Your task to perform on an android device: Open display settings Image 0: 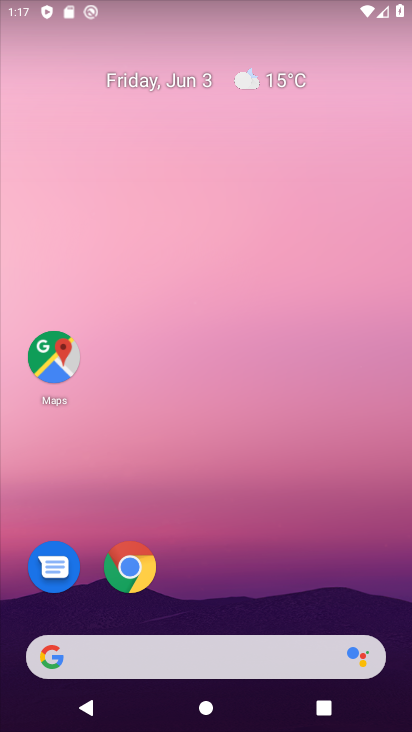
Step 0: drag from (262, 567) to (193, 73)
Your task to perform on an android device: Open display settings Image 1: 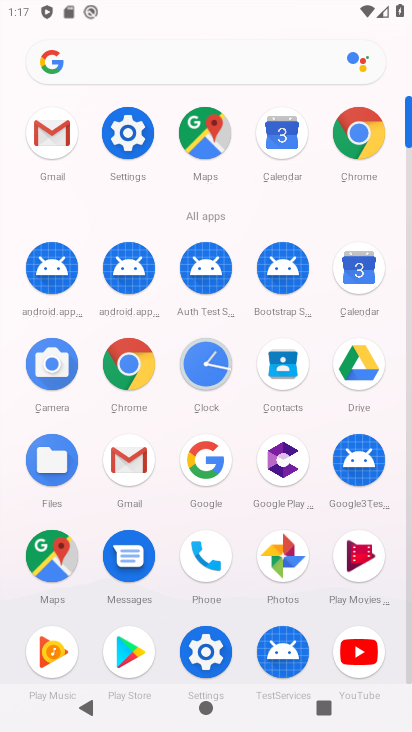
Step 1: click (131, 133)
Your task to perform on an android device: Open display settings Image 2: 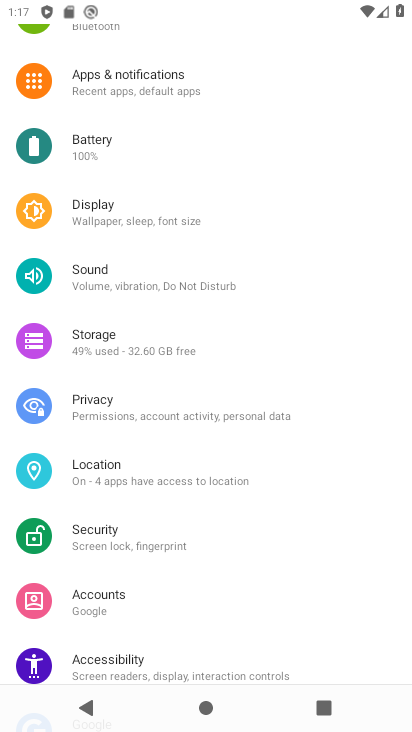
Step 2: click (108, 216)
Your task to perform on an android device: Open display settings Image 3: 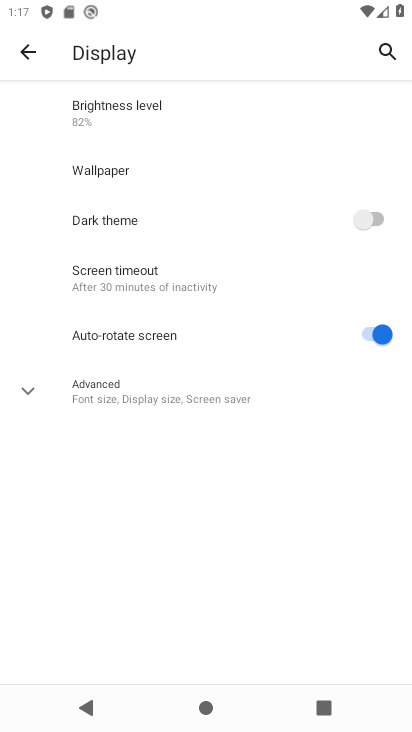
Step 3: task complete